Your task to perform on an android device: add a label to a message in the gmail app Image 0: 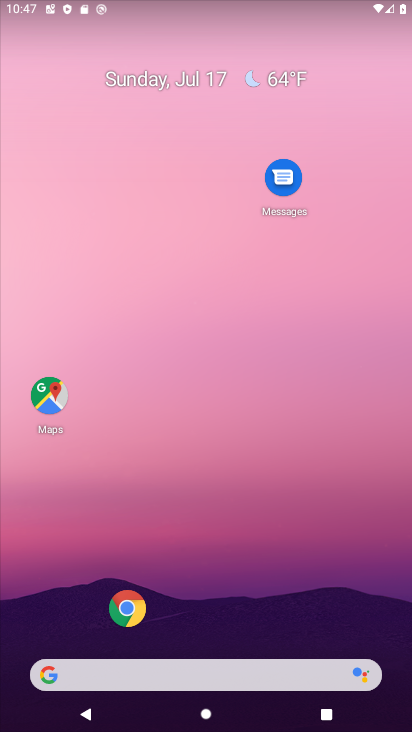
Step 0: drag from (206, 68) to (215, 29)
Your task to perform on an android device: add a label to a message in the gmail app Image 1: 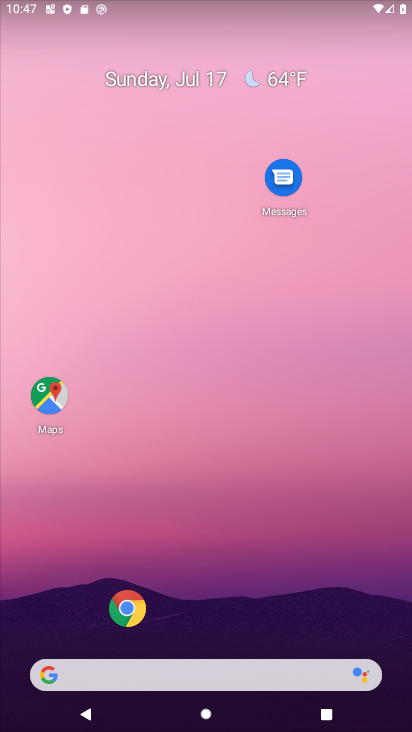
Step 1: drag from (90, 480) to (161, 227)
Your task to perform on an android device: add a label to a message in the gmail app Image 2: 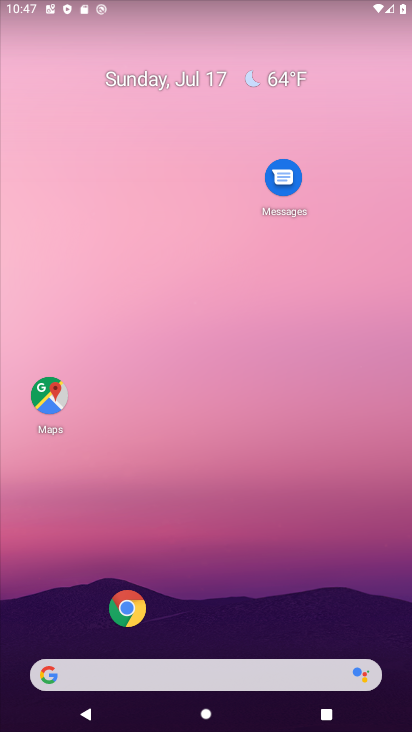
Step 2: drag from (19, 684) to (199, 147)
Your task to perform on an android device: add a label to a message in the gmail app Image 3: 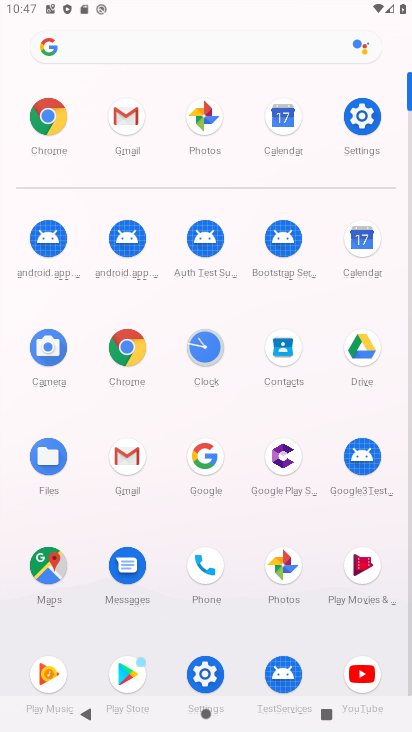
Step 3: click (112, 463)
Your task to perform on an android device: add a label to a message in the gmail app Image 4: 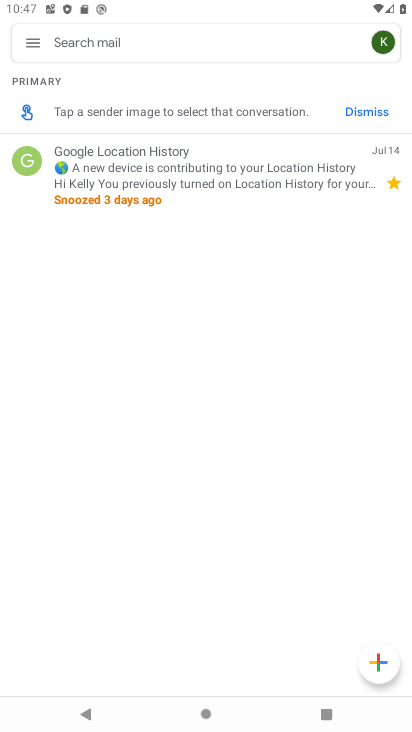
Step 4: click (31, 43)
Your task to perform on an android device: add a label to a message in the gmail app Image 5: 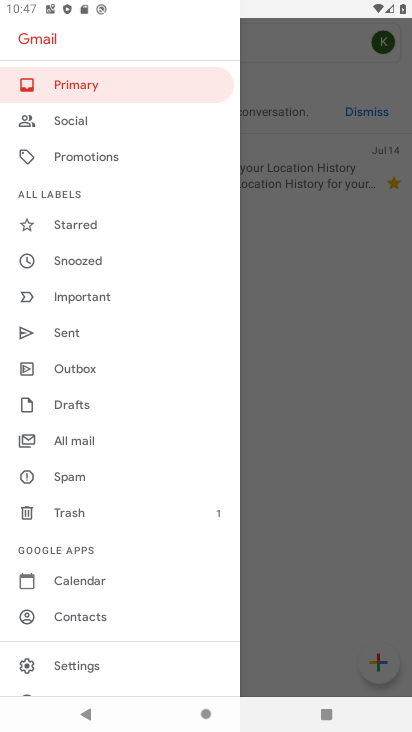
Step 5: click (93, 97)
Your task to perform on an android device: add a label to a message in the gmail app Image 6: 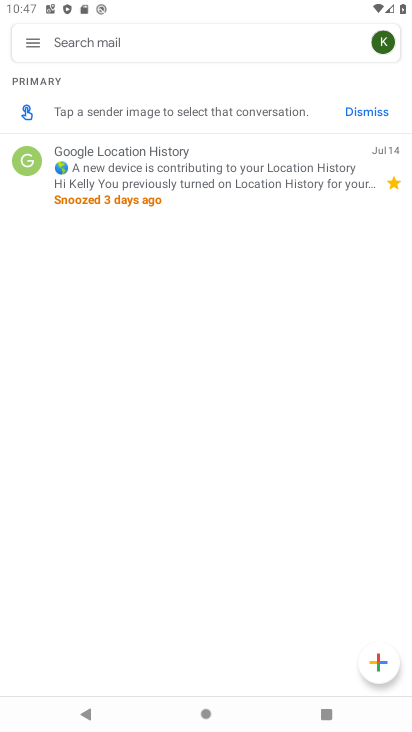
Step 6: task complete